Your task to perform on an android device: Go to accessibility settings Image 0: 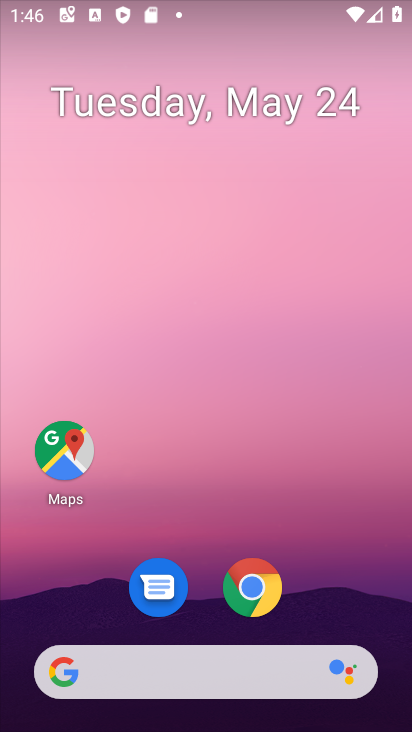
Step 0: drag from (261, 709) to (313, 78)
Your task to perform on an android device: Go to accessibility settings Image 1: 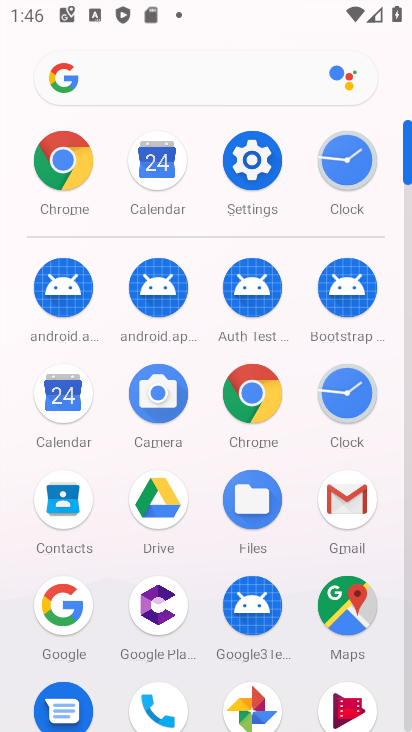
Step 1: click (276, 158)
Your task to perform on an android device: Go to accessibility settings Image 2: 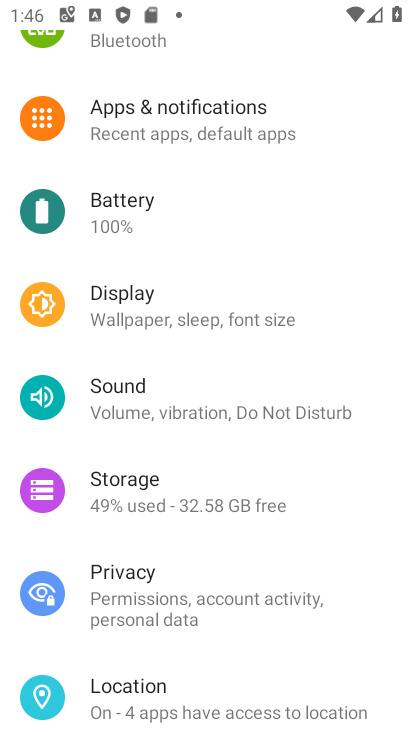
Step 2: click (260, 19)
Your task to perform on an android device: Go to accessibility settings Image 3: 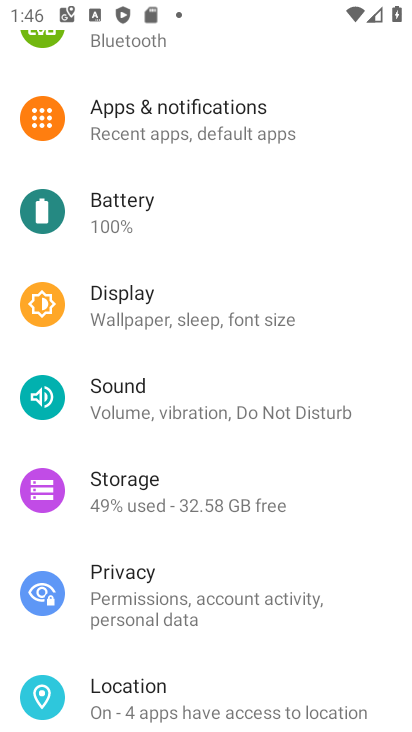
Step 3: drag from (219, 650) to (220, 182)
Your task to perform on an android device: Go to accessibility settings Image 4: 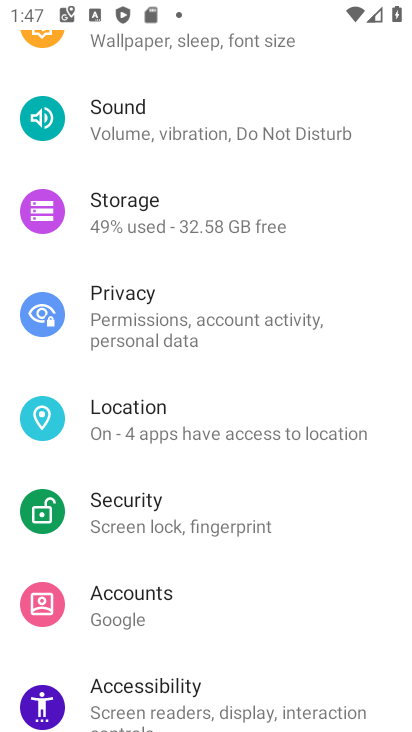
Step 4: click (176, 689)
Your task to perform on an android device: Go to accessibility settings Image 5: 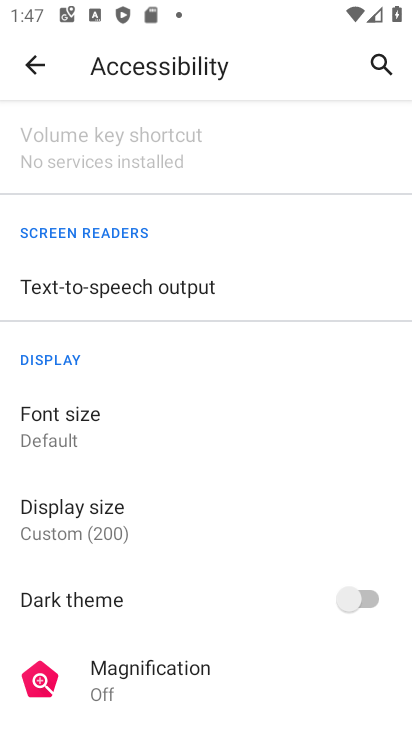
Step 5: task complete